Your task to perform on an android device: see sites visited before in the chrome app Image 0: 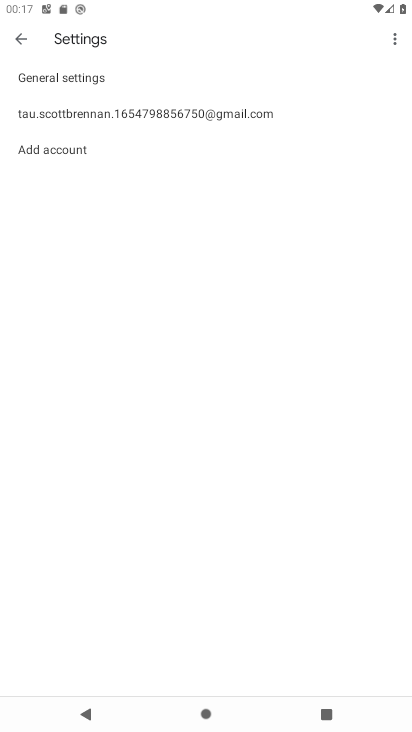
Step 0: drag from (308, 609) to (374, 347)
Your task to perform on an android device: see sites visited before in the chrome app Image 1: 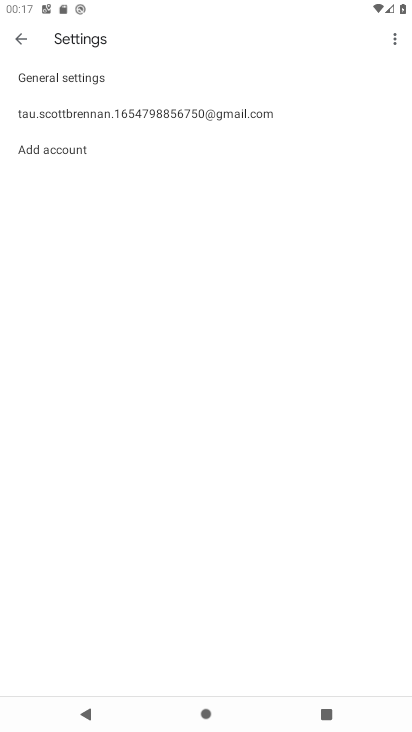
Step 1: press home button
Your task to perform on an android device: see sites visited before in the chrome app Image 2: 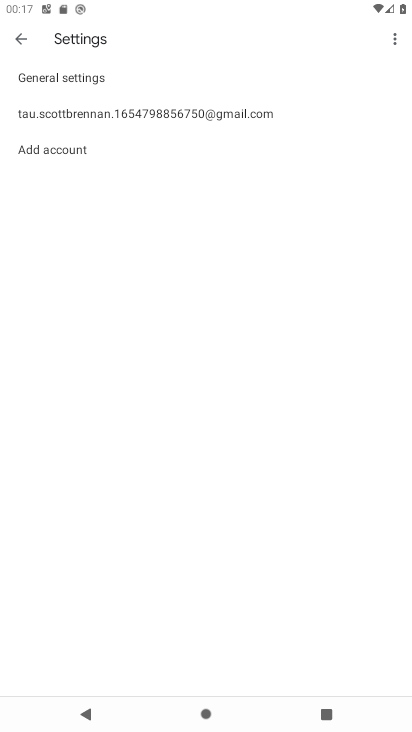
Step 2: drag from (374, 347) to (389, 489)
Your task to perform on an android device: see sites visited before in the chrome app Image 3: 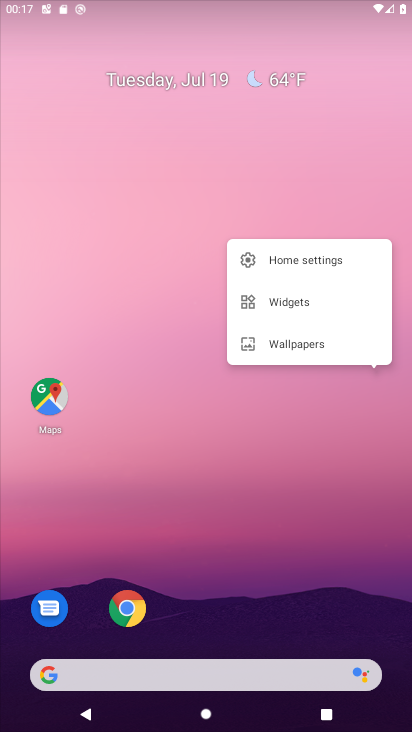
Step 3: drag from (265, 593) to (247, 1)
Your task to perform on an android device: see sites visited before in the chrome app Image 4: 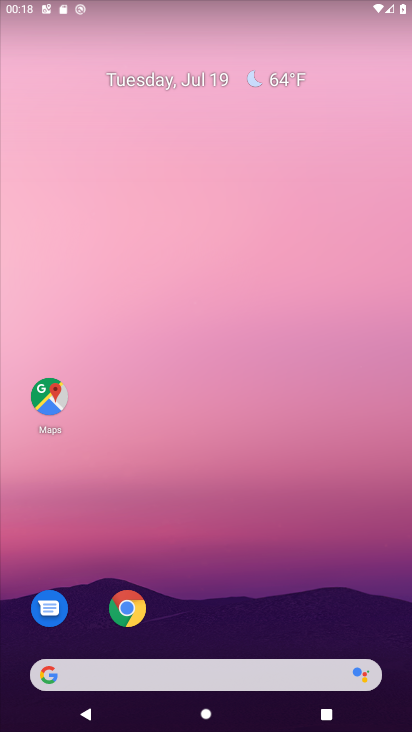
Step 4: drag from (220, 604) to (257, 4)
Your task to perform on an android device: see sites visited before in the chrome app Image 5: 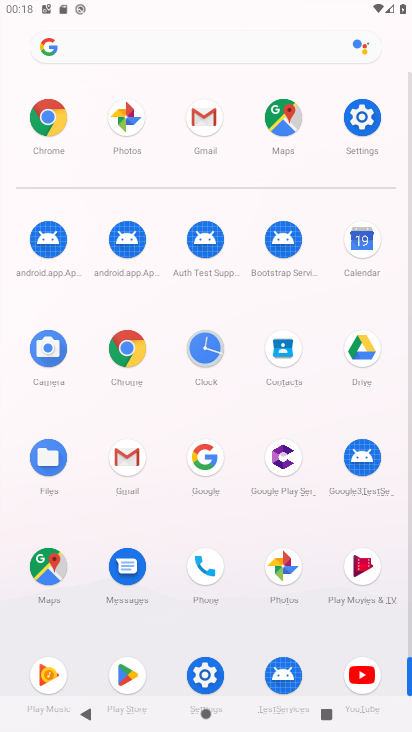
Step 5: click (133, 345)
Your task to perform on an android device: see sites visited before in the chrome app Image 6: 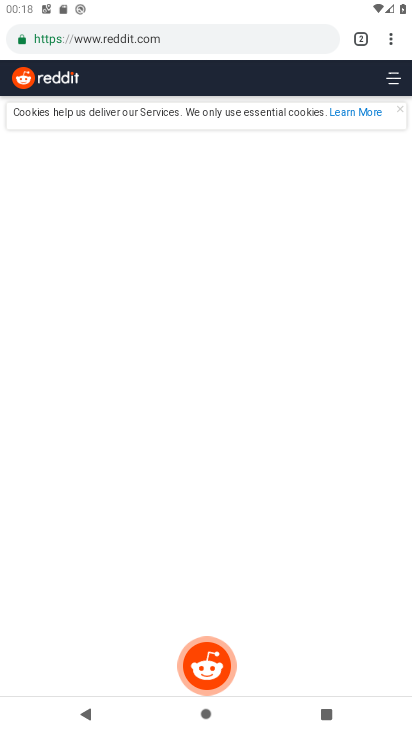
Step 6: task complete